Your task to perform on an android device: check out phone information Image 0: 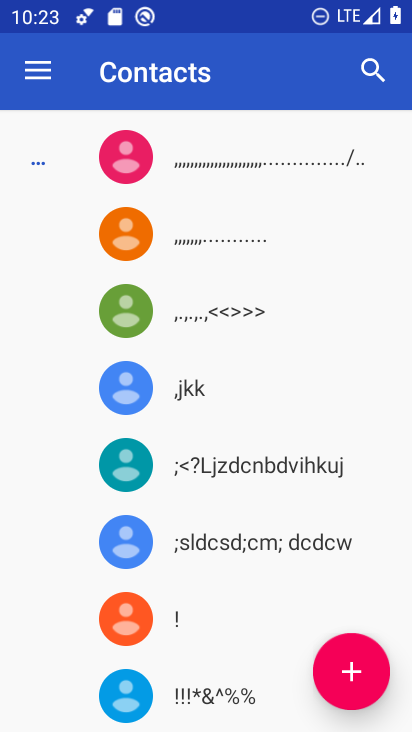
Step 0: press home button
Your task to perform on an android device: check out phone information Image 1: 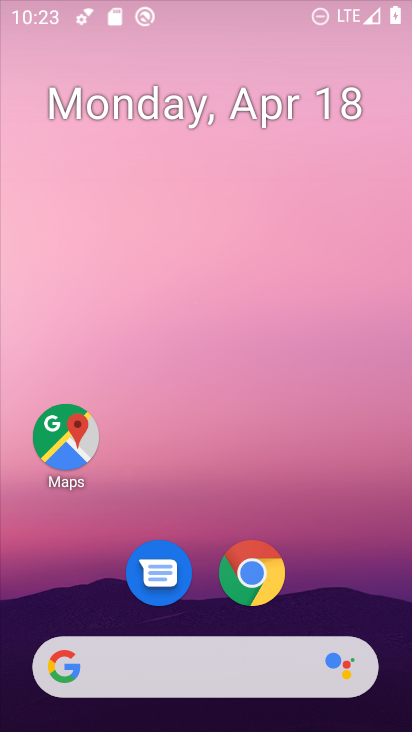
Step 1: drag from (313, 500) to (187, 39)
Your task to perform on an android device: check out phone information Image 2: 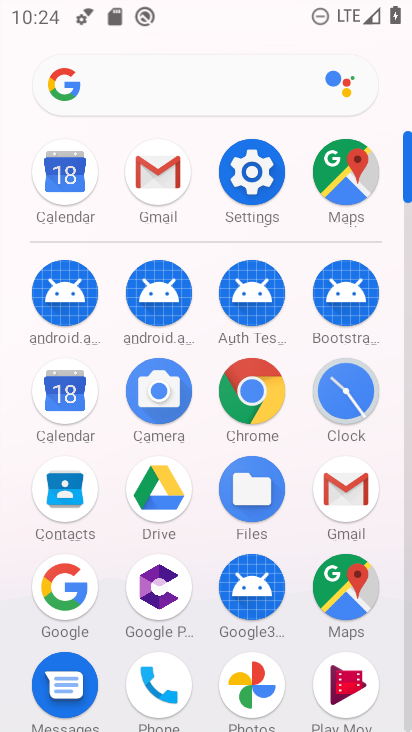
Step 2: click (271, 163)
Your task to perform on an android device: check out phone information Image 3: 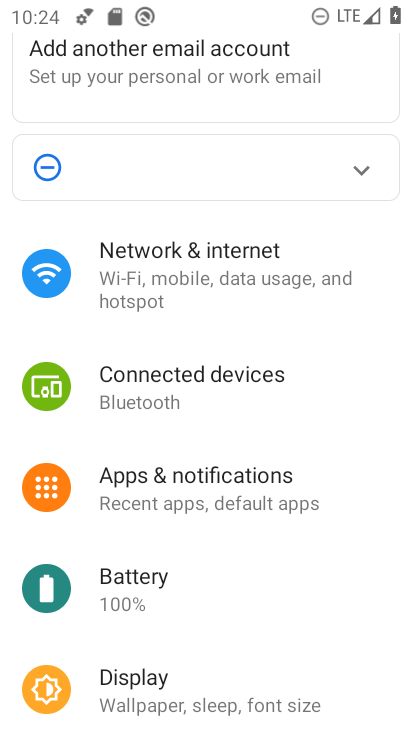
Step 3: task complete